Your task to perform on an android device: toggle sleep mode Image 0: 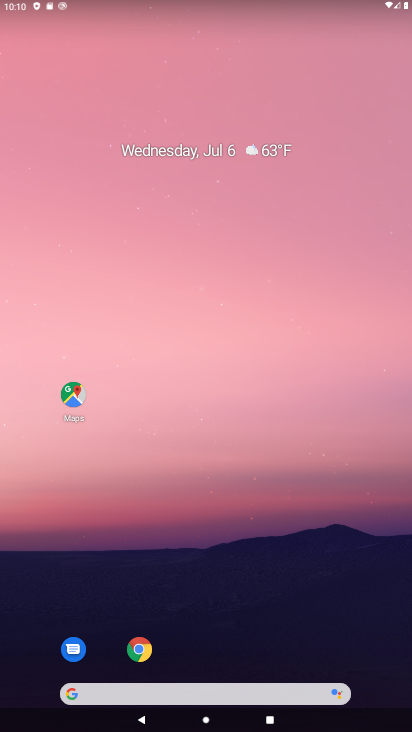
Step 0: press home button
Your task to perform on an android device: toggle sleep mode Image 1: 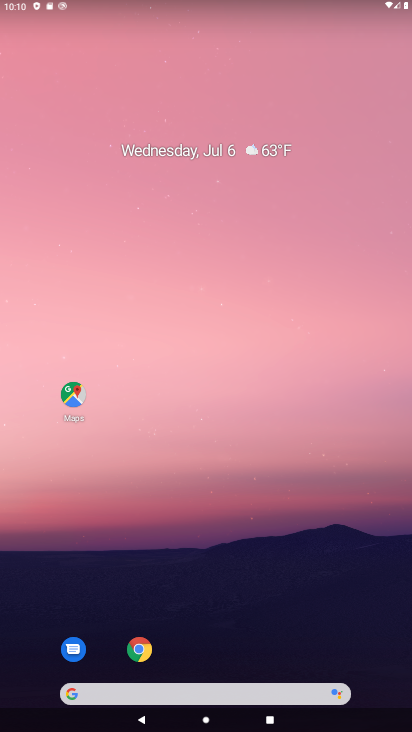
Step 1: drag from (242, 656) to (240, 88)
Your task to perform on an android device: toggle sleep mode Image 2: 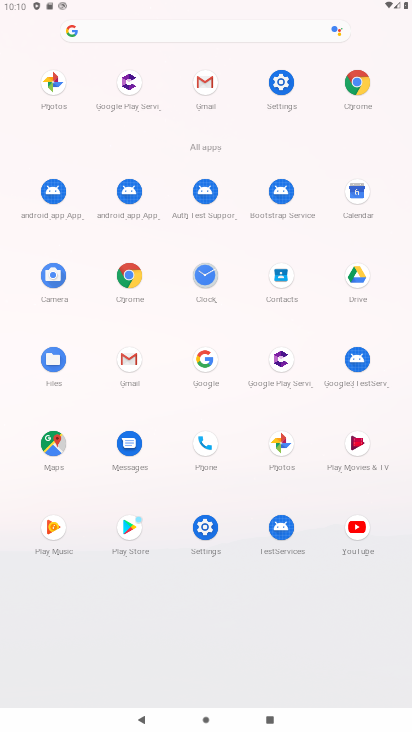
Step 2: click (284, 79)
Your task to perform on an android device: toggle sleep mode Image 3: 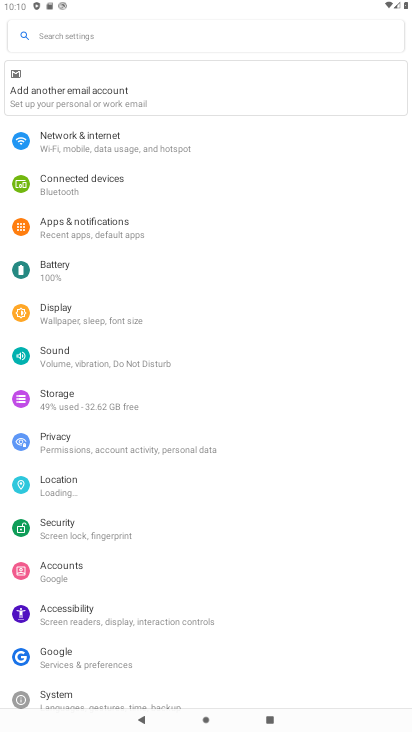
Step 3: click (76, 307)
Your task to perform on an android device: toggle sleep mode Image 4: 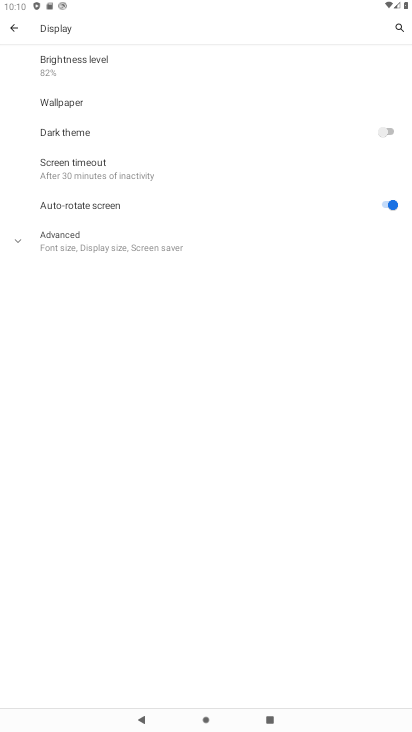
Step 4: task complete